Your task to perform on an android device: turn off notifications in google photos Image 0: 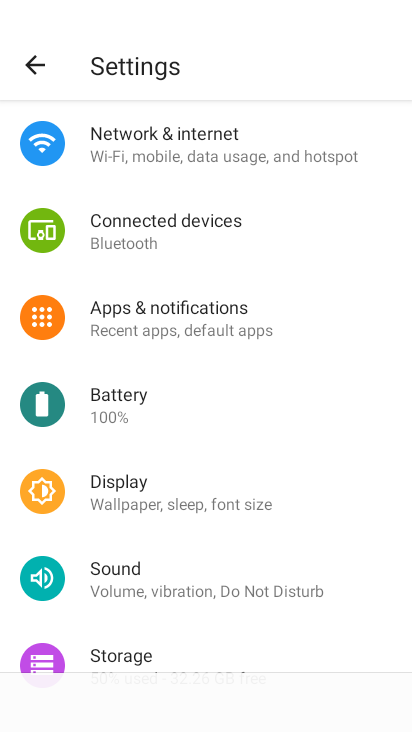
Step 0: press home button
Your task to perform on an android device: turn off notifications in google photos Image 1: 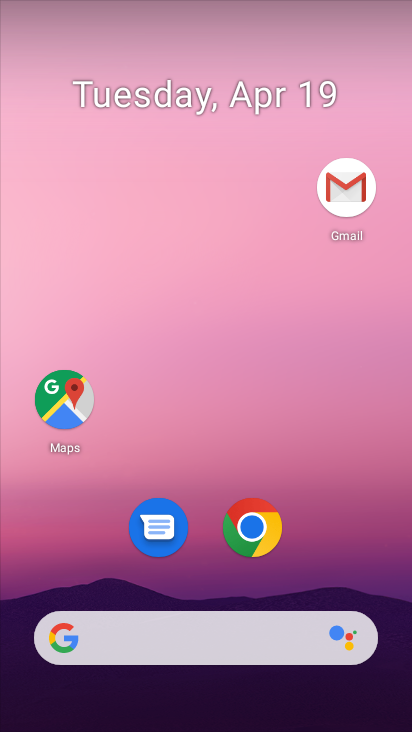
Step 1: drag from (344, 528) to (351, 58)
Your task to perform on an android device: turn off notifications in google photos Image 2: 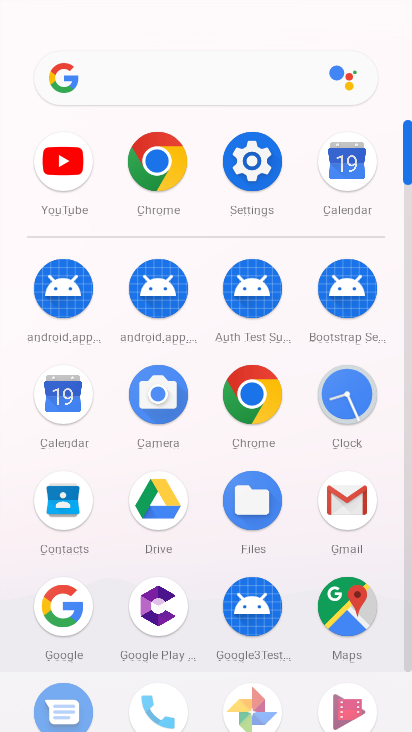
Step 2: drag from (383, 551) to (385, 209)
Your task to perform on an android device: turn off notifications in google photos Image 3: 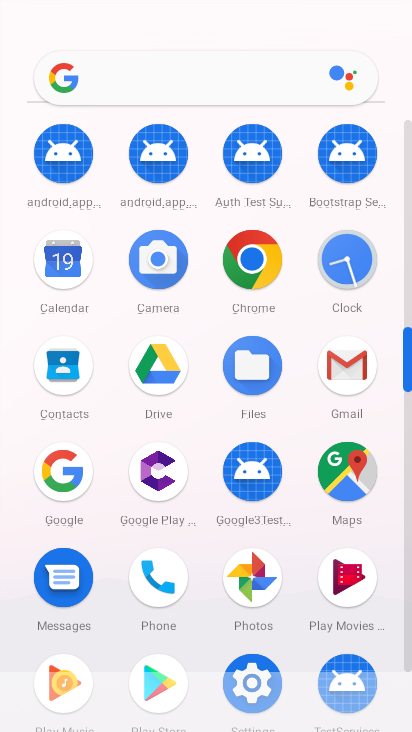
Step 3: click (258, 569)
Your task to perform on an android device: turn off notifications in google photos Image 4: 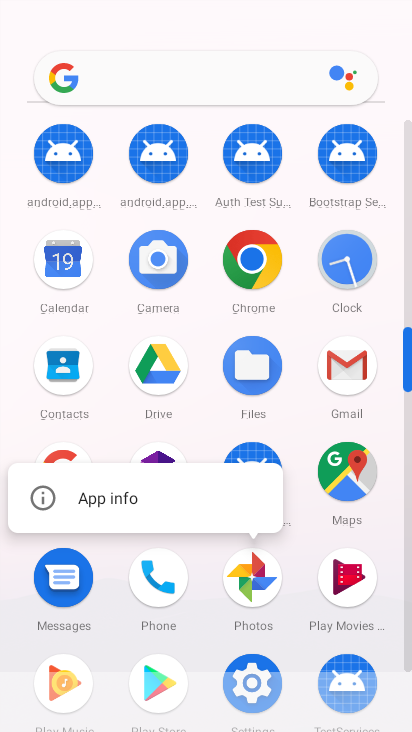
Step 4: click (263, 582)
Your task to perform on an android device: turn off notifications in google photos Image 5: 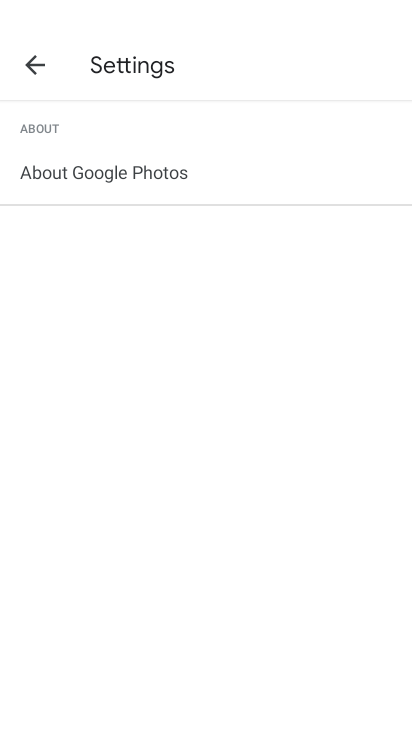
Step 5: press home button
Your task to perform on an android device: turn off notifications in google photos Image 6: 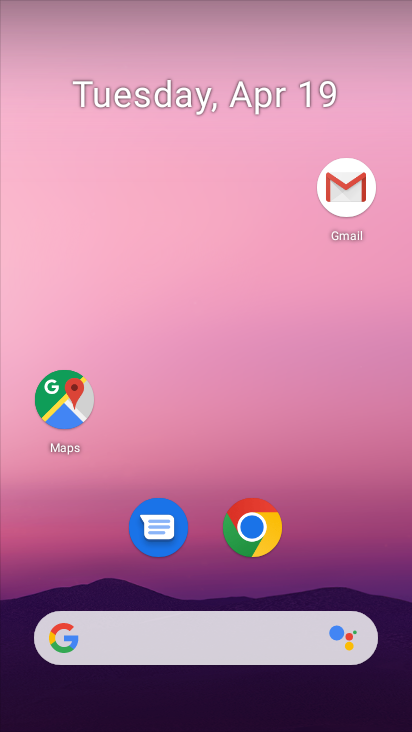
Step 6: drag from (344, 179) to (344, 70)
Your task to perform on an android device: turn off notifications in google photos Image 7: 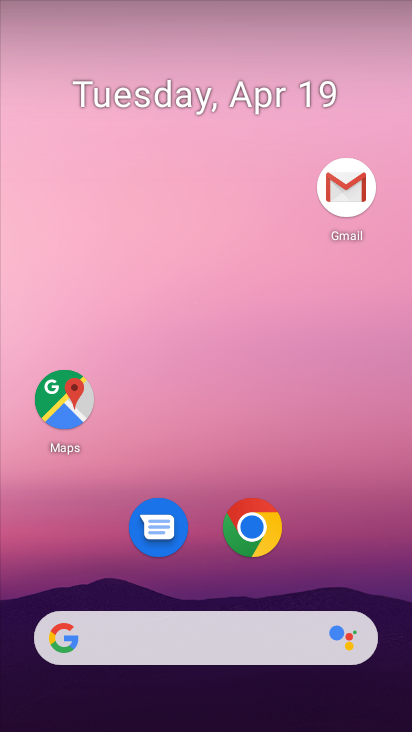
Step 7: drag from (352, 398) to (338, 100)
Your task to perform on an android device: turn off notifications in google photos Image 8: 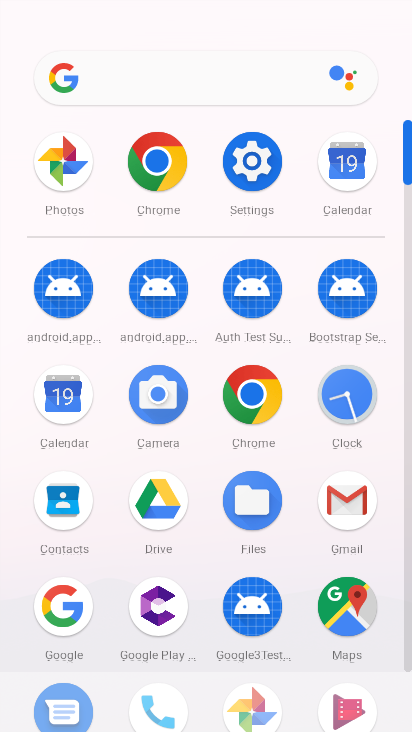
Step 8: drag from (298, 603) to (292, 253)
Your task to perform on an android device: turn off notifications in google photos Image 9: 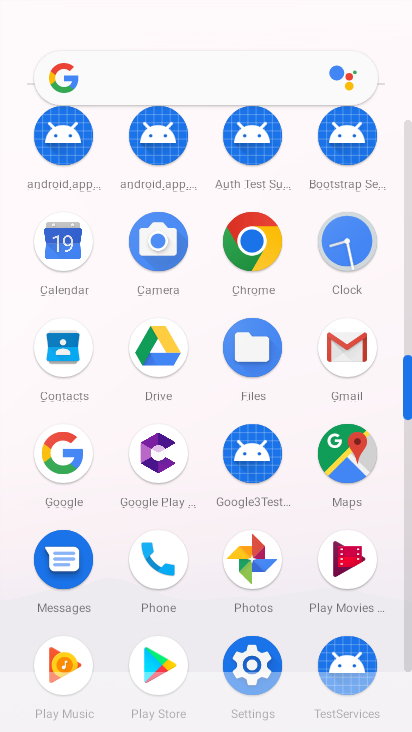
Step 9: click (250, 567)
Your task to perform on an android device: turn off notifications in google photos Image 10: 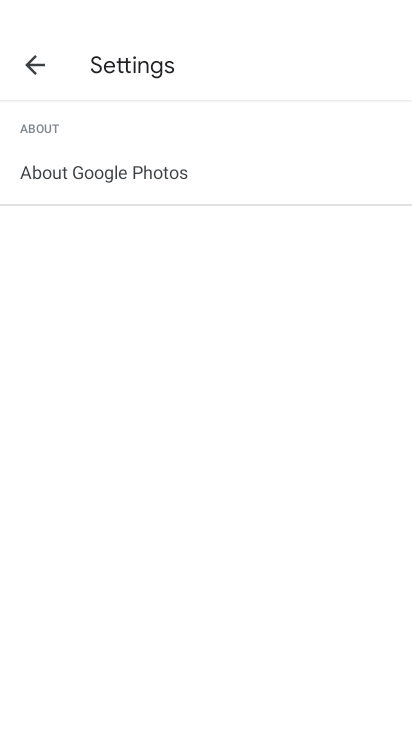
Step 10: click (42, 67)
Your task to perform on an android device: turn off notifications in google photos Image 11: 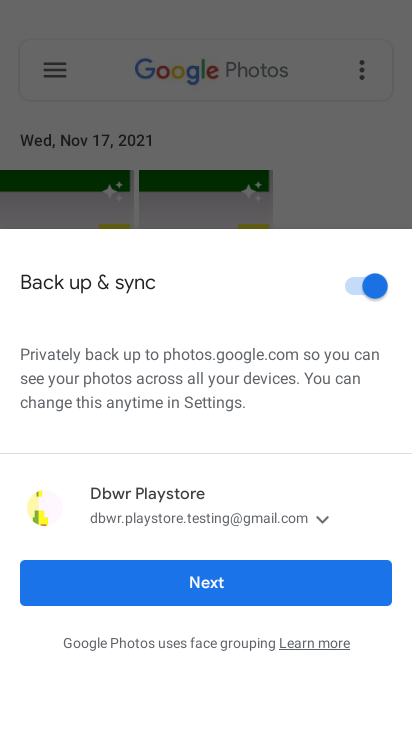
Step 11: click (61, 79)
Your task to perform on an android device: turn off notifications in google photos Image 12: 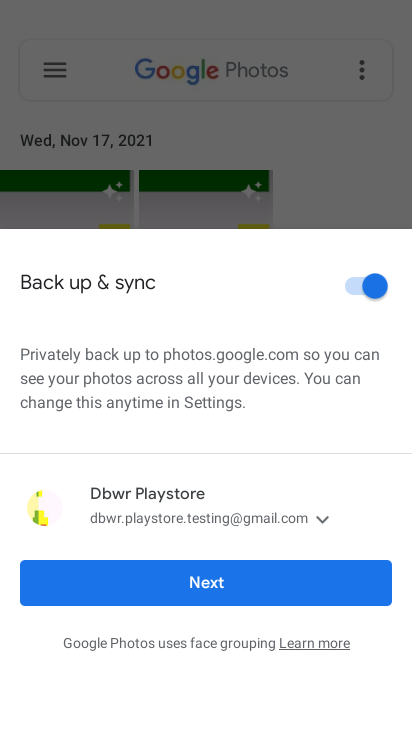
Step 12: click (184, 571)
Your task to perform on an android device: turn off notifications in google photos Image 13: 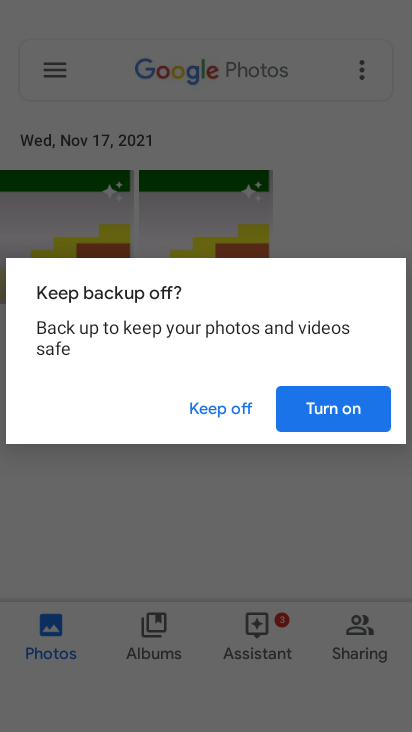
Step 13: click (307, 417)
Your task to perform on an android device: turn off notifications in google photos Image 14: 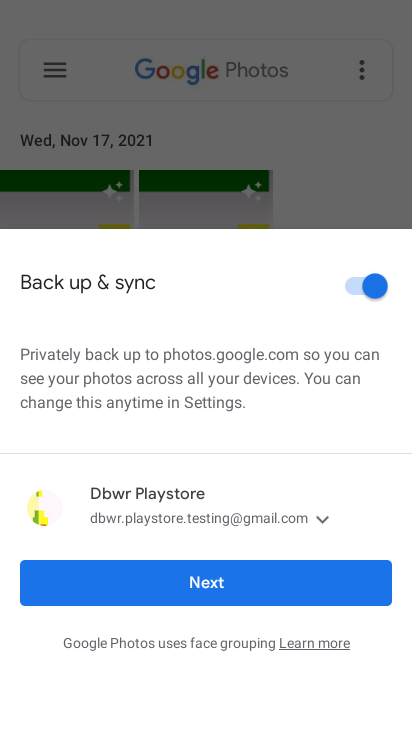
Step 14: click (58, 78)
Your task to perform on an android device: turn off notifications in google photos Image 15: 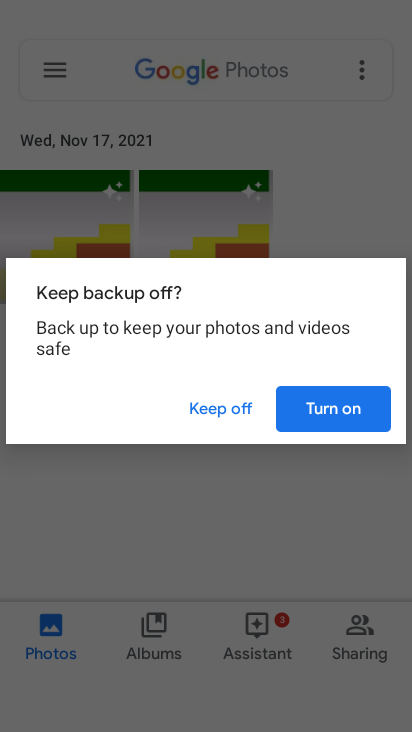
Step 15: click (189, 590)
Your task to perform on an android device: turn off notifications in google photos Image 16: 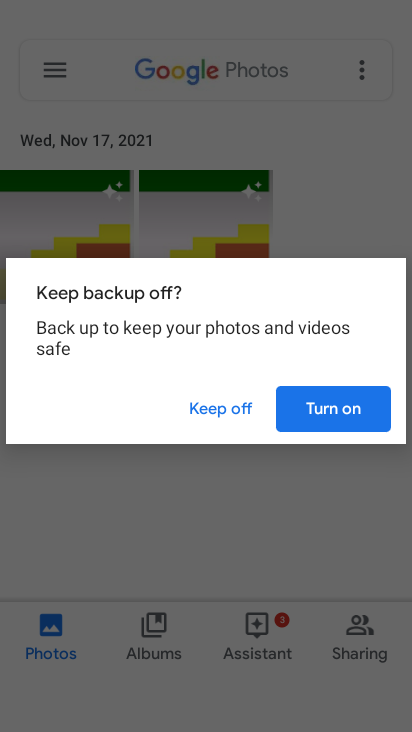
Step 16: click (322, 416)
Your task to perform on an android device: turn off notifications in google photos Image 17: 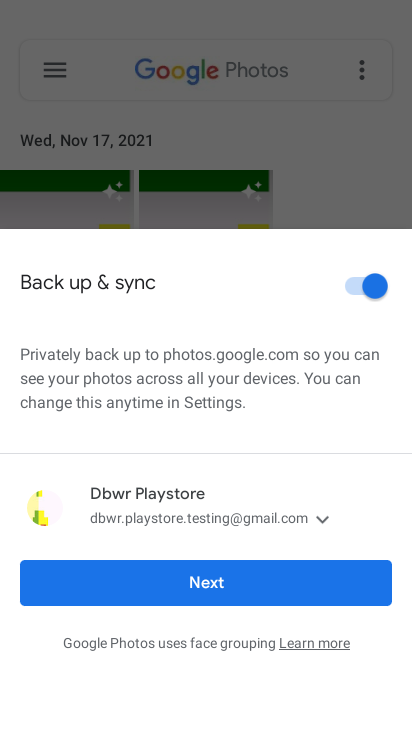
Step 17: click (197, 592)
Your task to perform on an android device: turn off notifications in google photos Image 18: 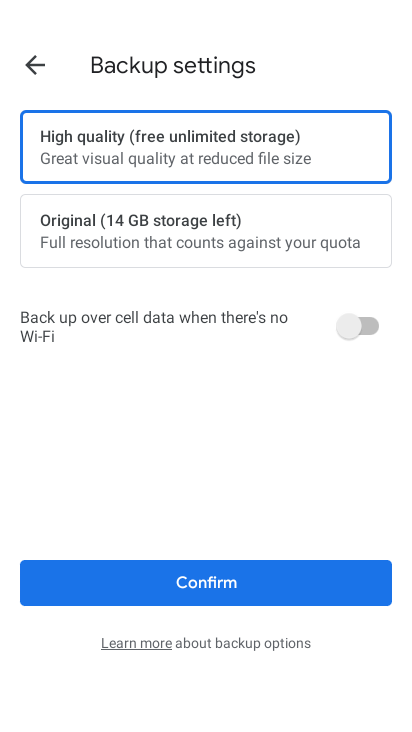
Step 18: click (199, 583)
Your task to perform on an android device: turn off notifications in google photos Image 19: 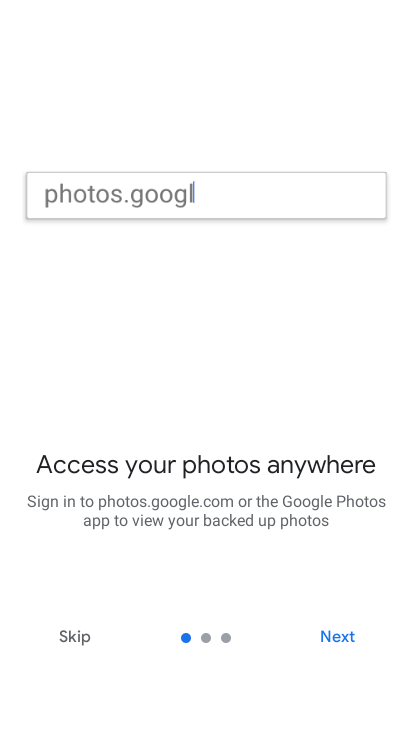
Step 19: click (349, 638)
Your task to perform on an android device: turn off notifications in google photos Image 20: 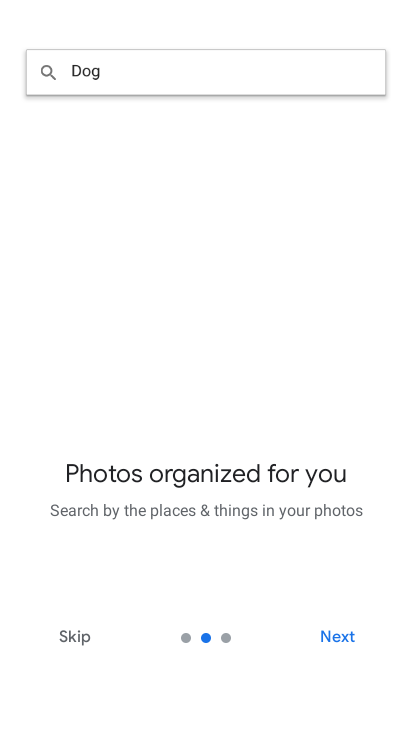
Step 20: click (347, 636)
Your task to perform on an android device: turn off notifications in google photos Image 21: 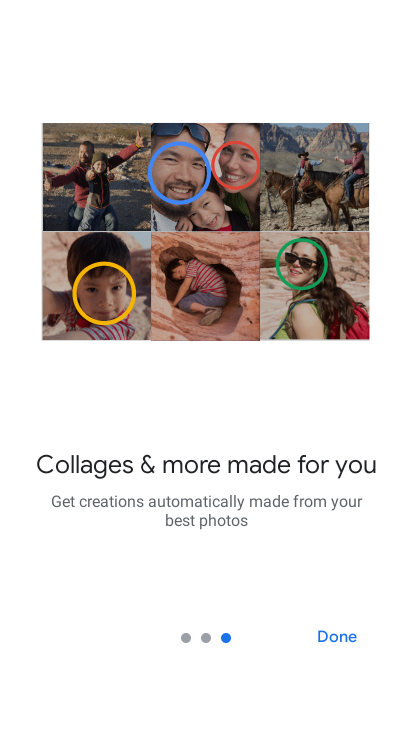
Step 21: click (348, 635)
Your task to perform on an android device: turn off notifications in google photos Image 22: 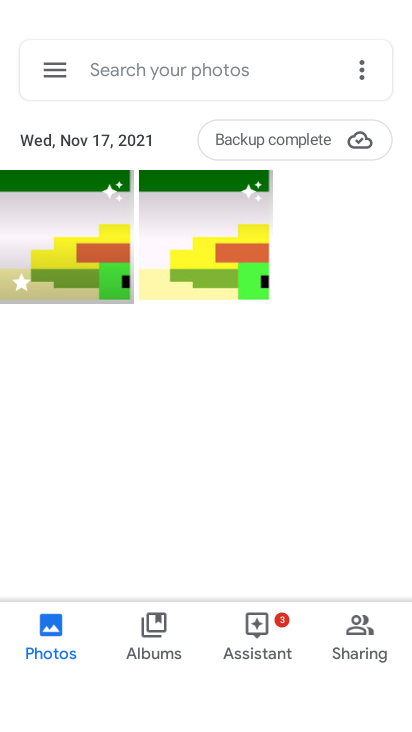
Step 22: click (49, 69)
Your task to perform on an android device: turn off notifications in google photos Image 23: 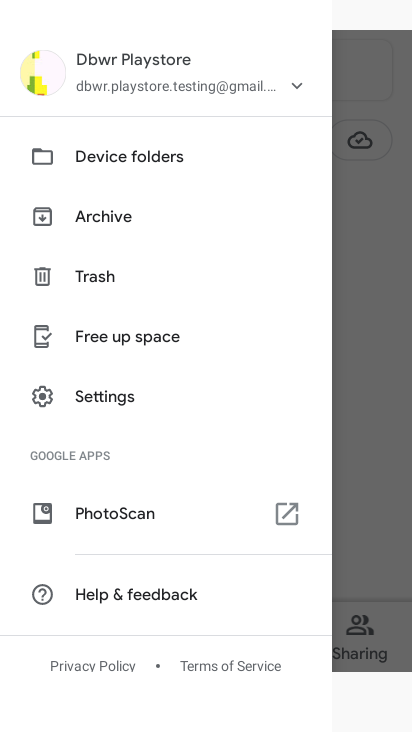
Step 23: click (109, 390)
Your task to perform on an android device: turn off notifications in google photos Image 24: 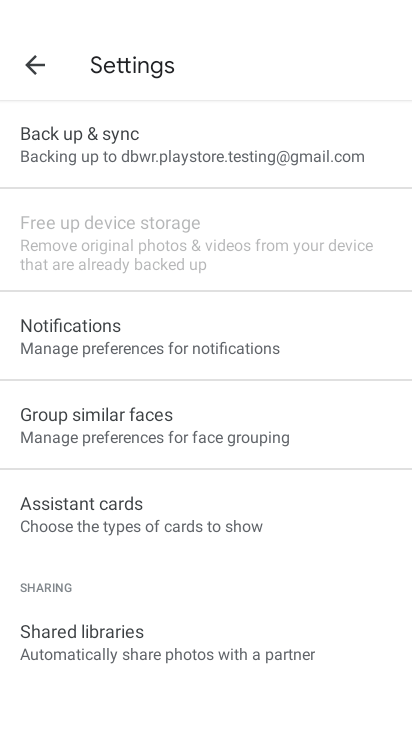
Step 24: click (152, 346)
Your task to perform on an android device: turn off notifications in google photos Image 25: 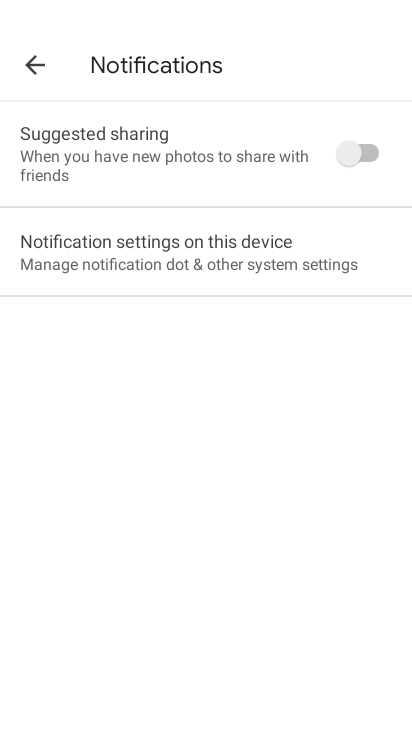
Step 25: click (268, 252)
Your task to perform on an android device: turn off notifications in google photos Image 26: 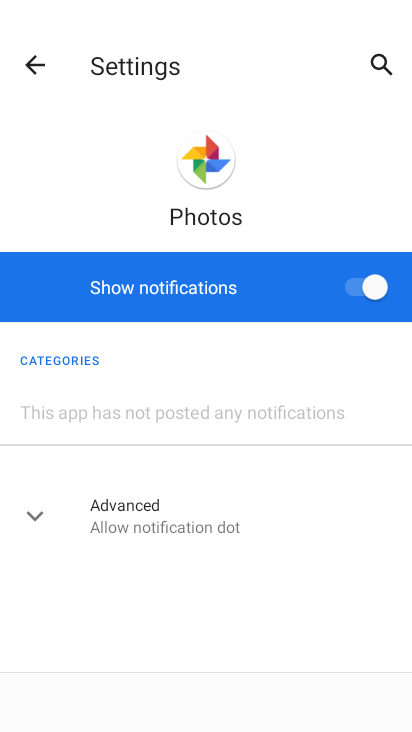
Step 26: click (355, 286)
Your task to perform on an android device: turn off notifications in google photos Image 27: 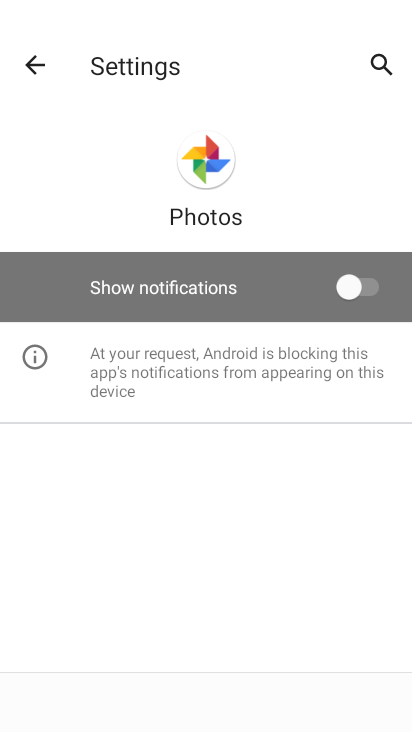
Step 27: task complete